Your task to perform on an android device: turn on javascript in the chrome app Image 0: 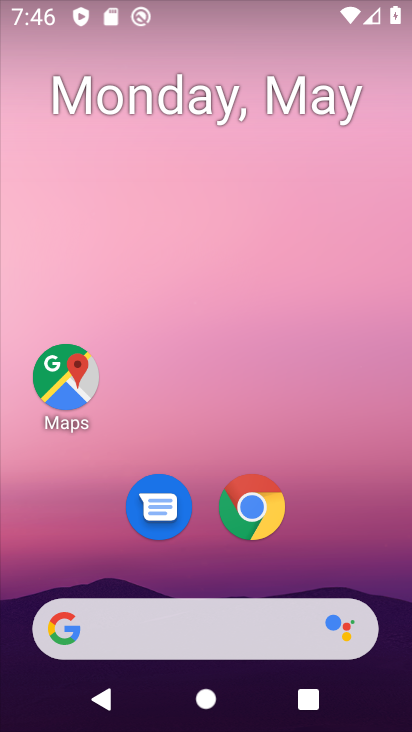
Step 0: click (251, 505)
Your task to perform on an android device: turn on javascript in the chrome app Image 1: 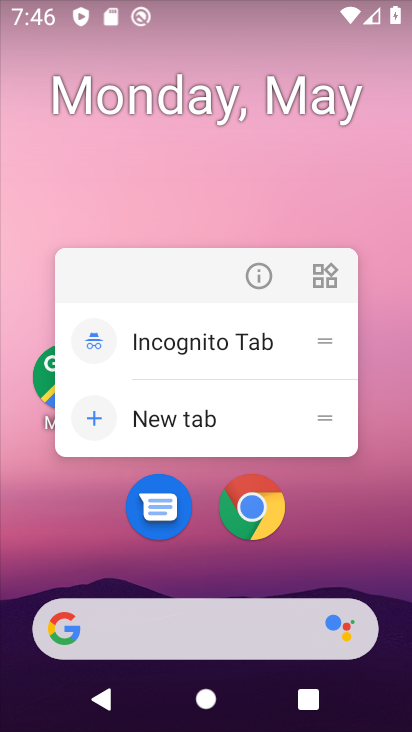
Step 1: click (259, 517)
Your task to perform on an android device: turn on javascript in the chrome app Image 2: 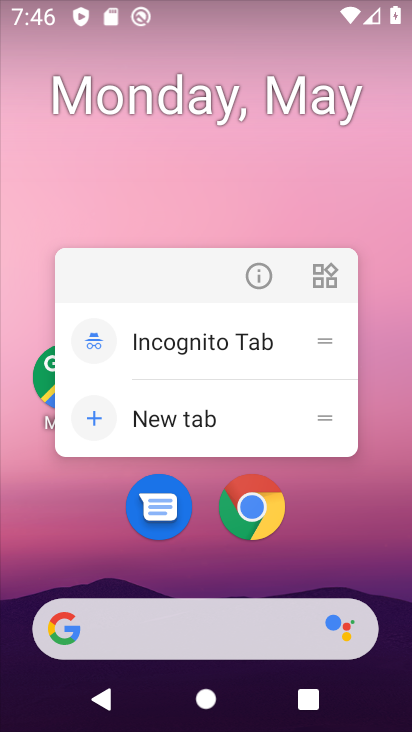
Step 2: click (329, 541)
Your task to perform on an android device: turn on javascript in the chrome app Image 3: 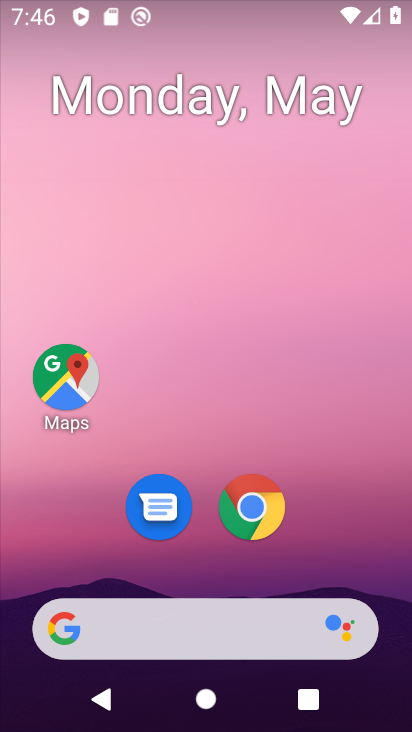
Step 3: drag from (329, 540) to (286, 198)
Your task to perform on an android device: turn on javascript in the chrome app Image 4: 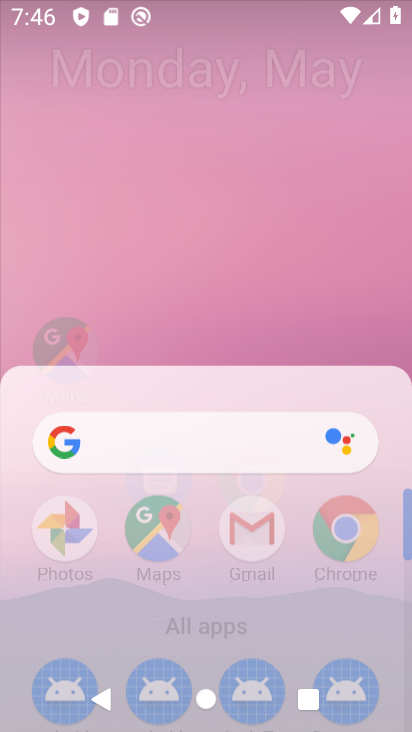
Step 4: click (304, 135)
Your task to perform on an android device: turn on javascript in the chrome app Image 5: 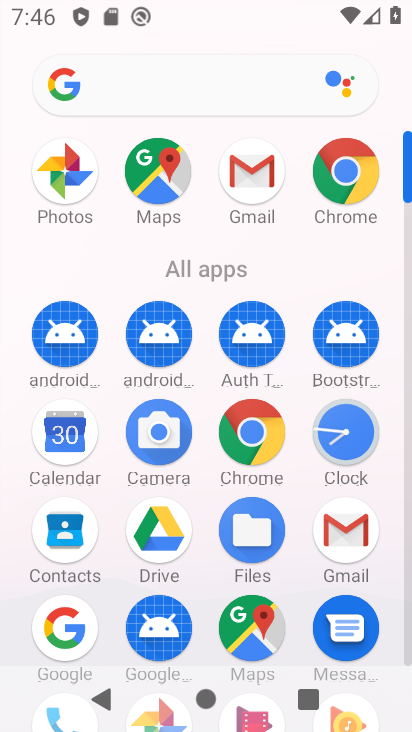
Step 5: click (241, 426)
Your task to perform on an android device: turn on javascript in the chrome app Image 6: 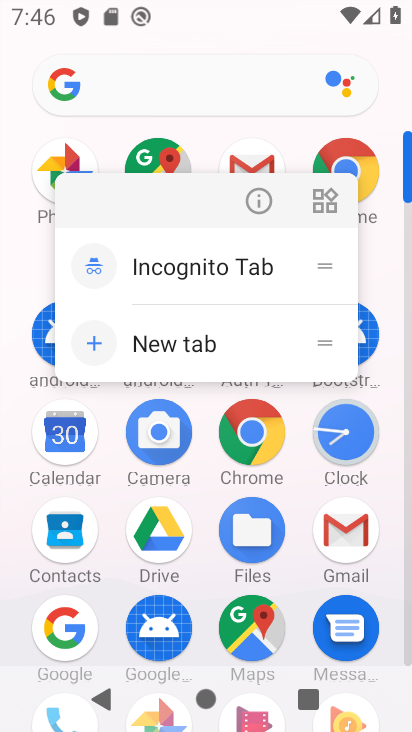
Step 6: click (246, 429)
Your task to perform on an android device: turn on javascript in the chrome app Image 7: 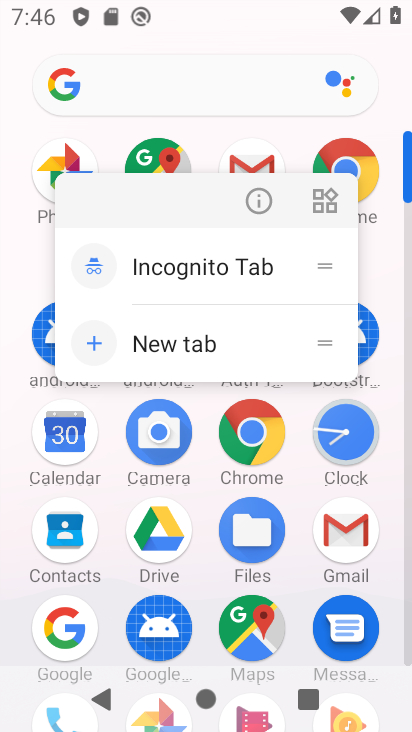
Step 7: click (271, 439)
Your task to perform on an android device: turn on javascript in the chrome app Image 8: 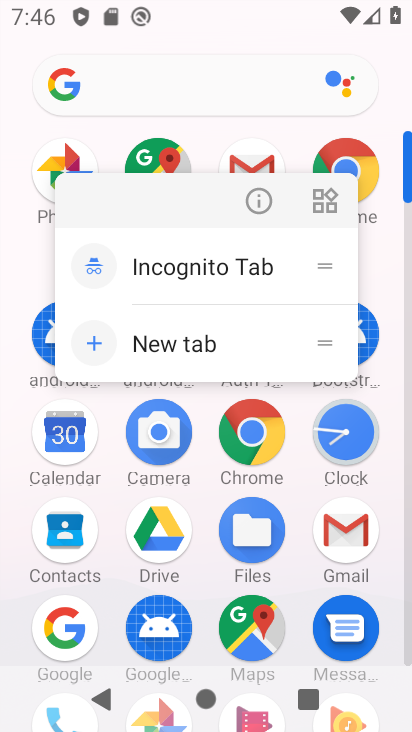
Step 8: click (269, 438)
Your task to perform on an android device: turn on javascript in the chrome app Image 9: 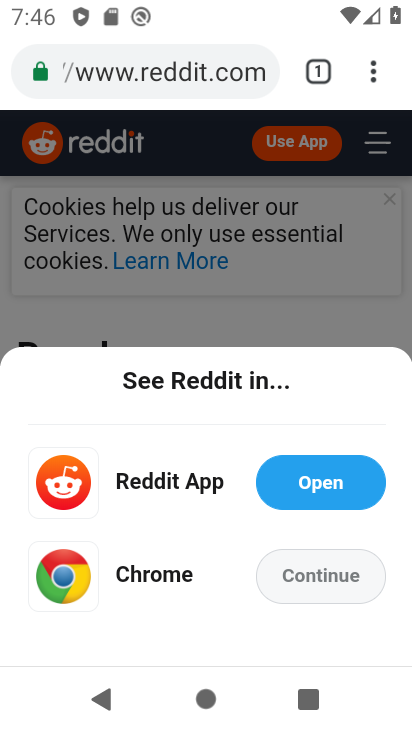
Step 9: drag from (392, 92) to (190, 506)
Your task to perform on an android device: turn on javascript in the chrome app Image 10: 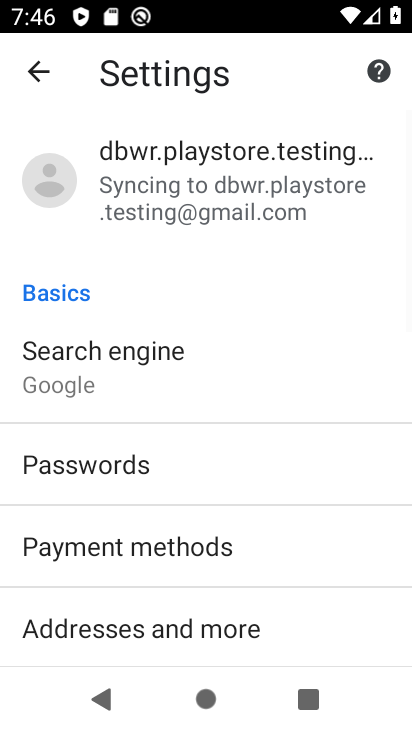
Step 10: drag from (288, 541) to (327, 155)
Your task to perform on an android device: turn on javascript in the chrome app Image 11: 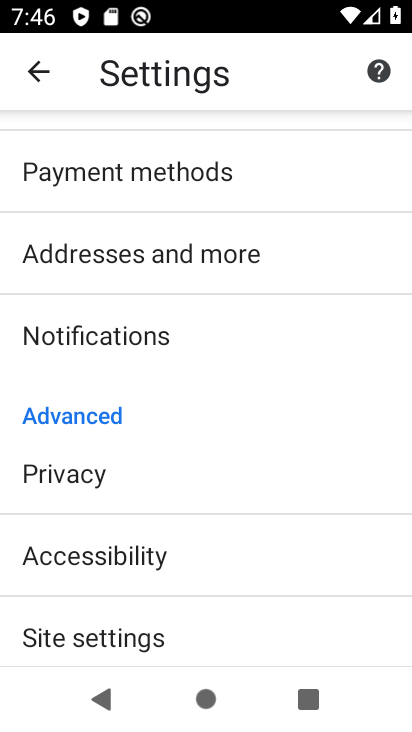
Step 11: drag from (236, 479) to (333, 218)
Your task to perform on an android device: turn on javascript in the chrome app Image 12: 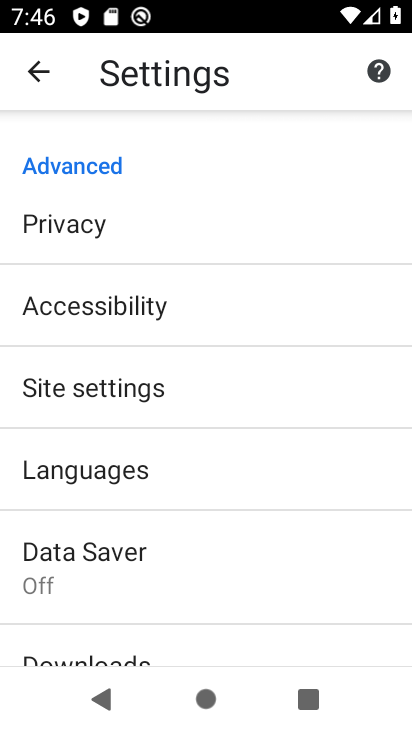
Step 12: click (169, 390)
Your task to perform on an android device: turn on javascript in the chrome app Image 13: 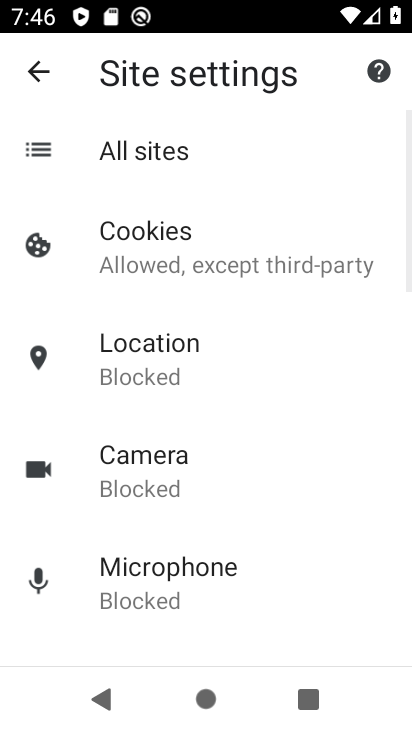
Step 13: drag from (197, 525) to (263, 210)
Your task to perform on an android device: turn on javascript in the chrome app Image 14: 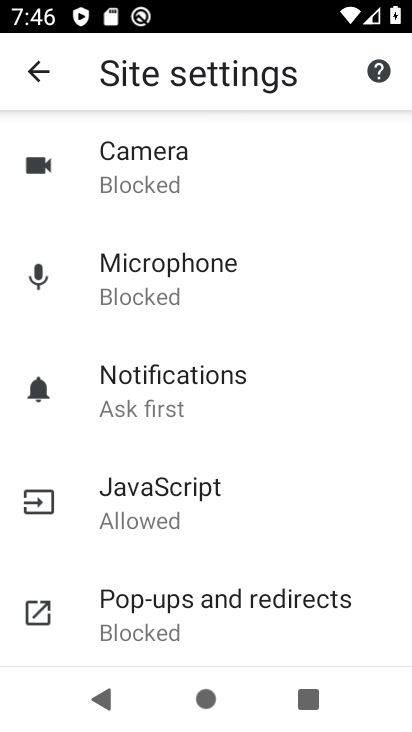
Step 14: click (196, 522)
Your task to perform on an android device: turn on javascript in the chrome app Image 15: 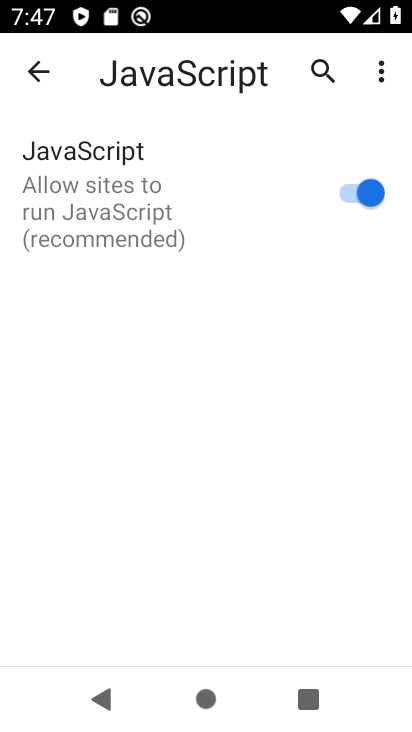
Step 15: task complete